Your task to perform on an android device: Go to Reddit.com Image 0: 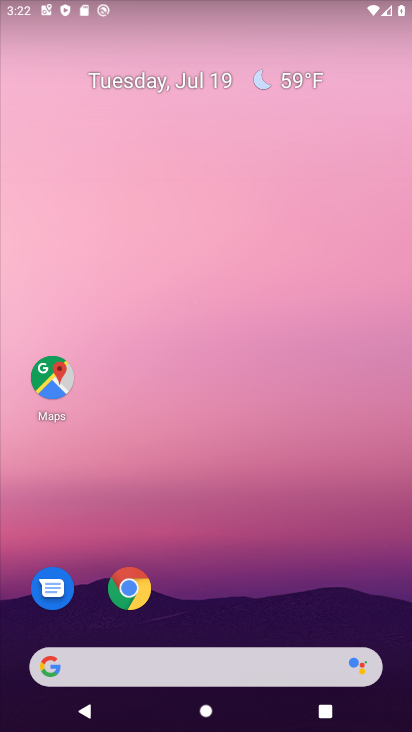
Step 0: click (138, 590)
Your task to perform on an android device: Go to Reddit.com Image 1: 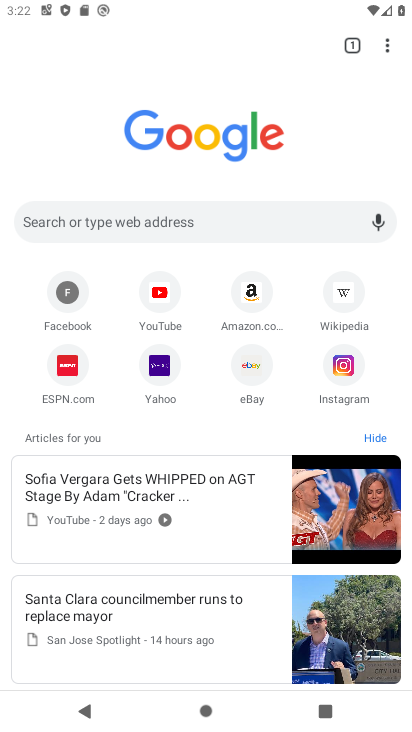
Step 1: click (170, 223)
Your task to perform on an android device: Go to Reddit.com Image 2: 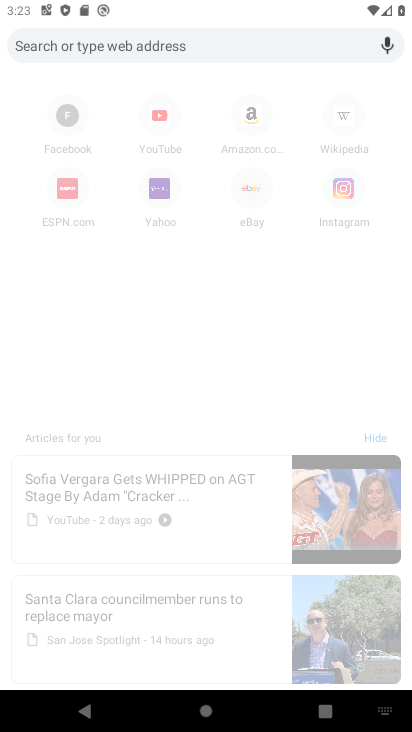
Step 2: type "Reddit.com"
Your task to perform on an android device: Go to Reddit.com Image 3: 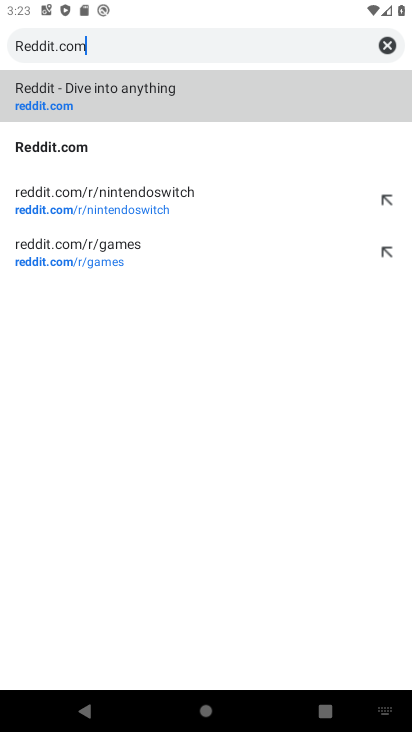
Step 3: click (211, 107)
Your task to perform on an android device: Go to Reddit.com Image 4: 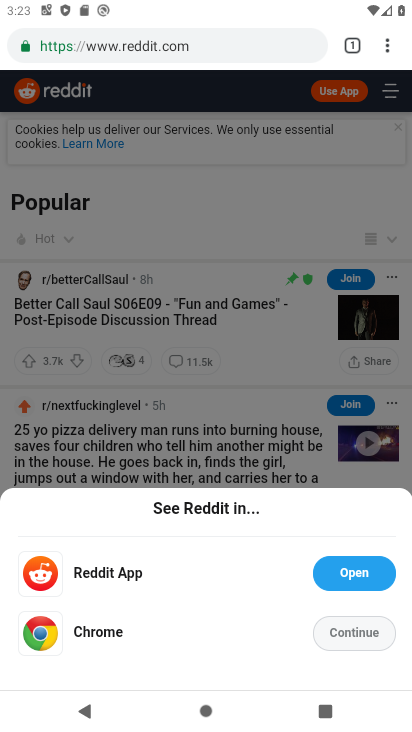
Step 4: click (368, 629)
Your task to perform on an android device: Go to Reddit.com Image 5: 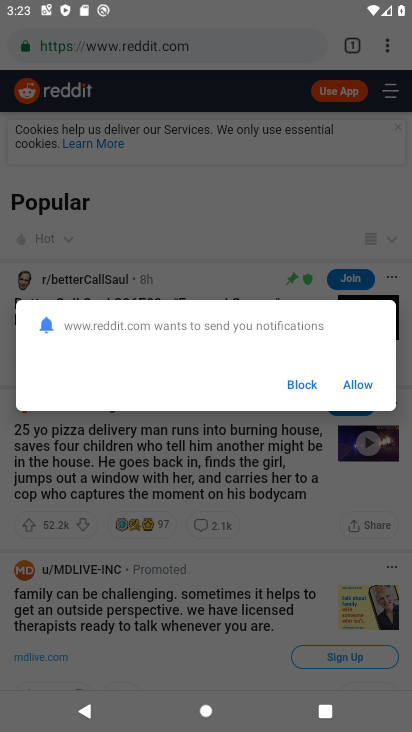
Step 5: task complete